Your task to perform on an android device: Clear the shopping cart on amazon.com. Search for "corsair k70" on amazon.com, select the first entry, and add it to the cart. Image 0: 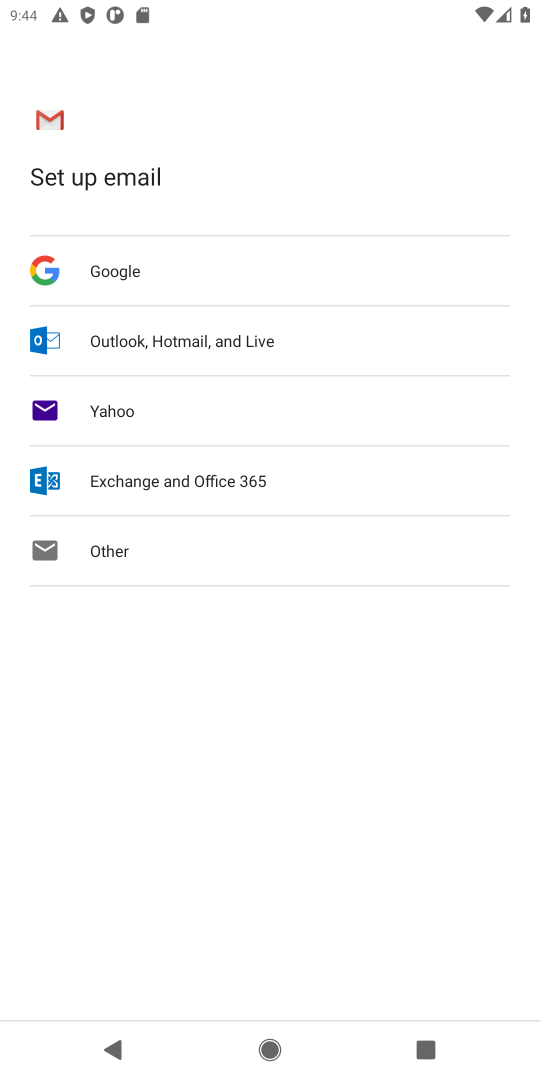
Step 0: click (156, 1080)
Your task to perform on an android device: Clear the shopping cart on amazon.com. Search for "corsair k70" on amazon.com, select the first entry, and add it to the cart. Image 1: 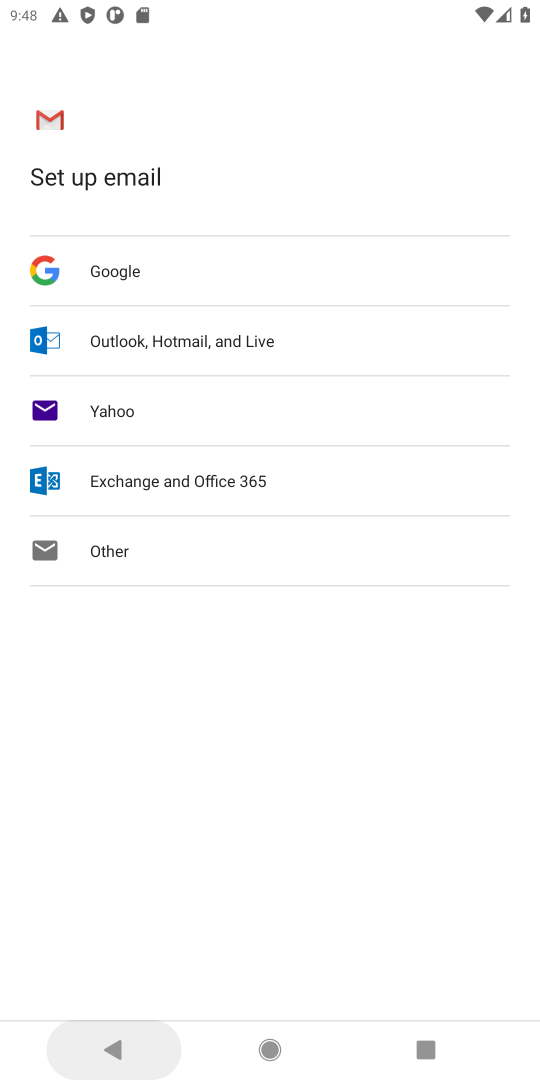
Step 1: task complete